Your task to perform on an android device: add a contact Image 0: 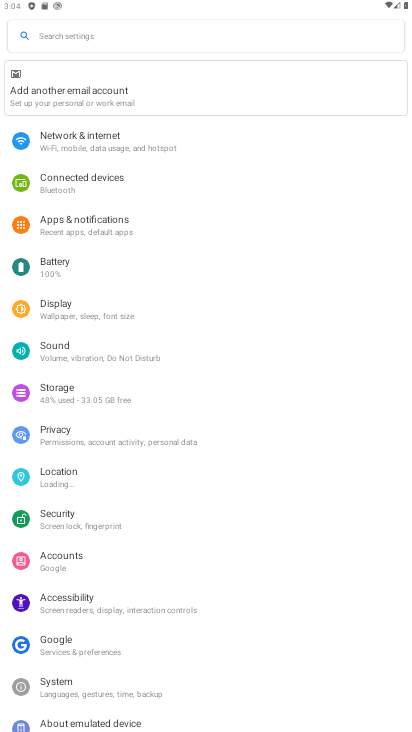
Step 0: press home button
Your task to perform on an android device: add a contact Image 1: 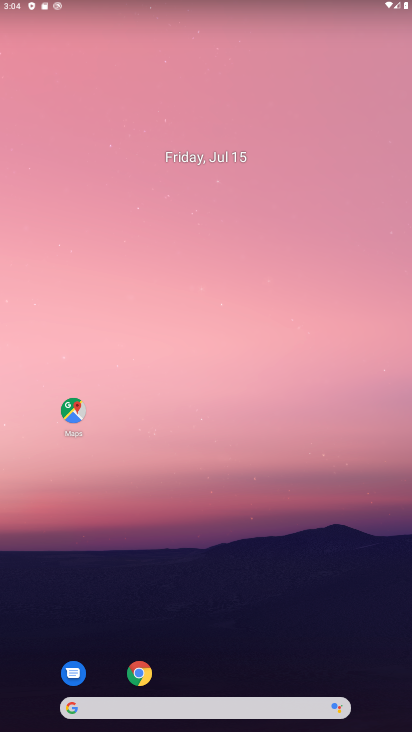
Step 1: click (305, 277)
Your task to perform on an android device: add a contact Image 2: 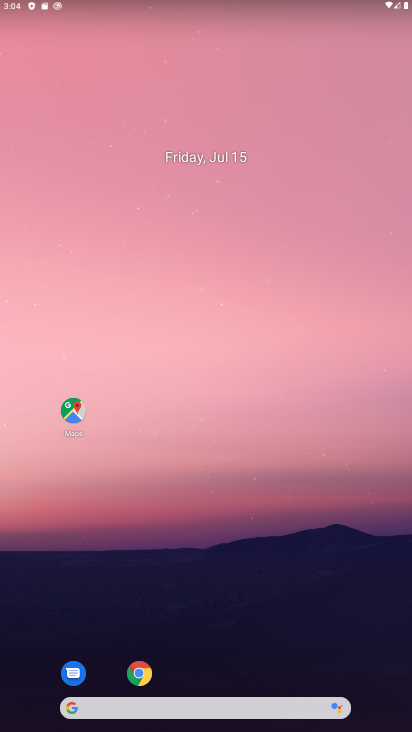
Step 2: drag from (203, 679) to (300, 185)
Your task to perform on an android device: add a contact Image 3: 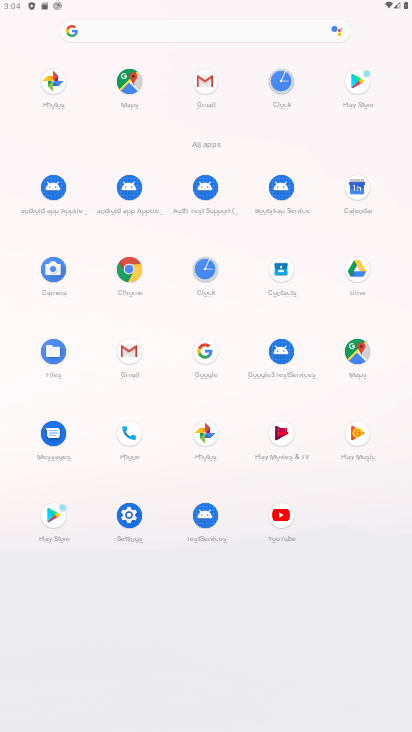
Step 3: click (276, 277)
Your task to perform on an android device: add a contact Image 4: 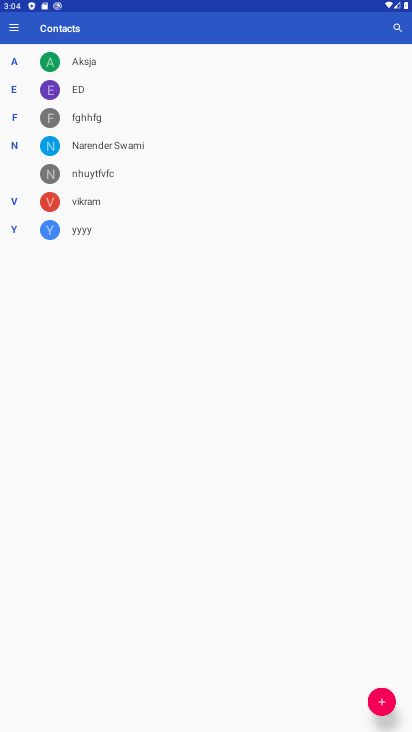
Step 4: click (391, 709)
Your task to perform on an android device: add a contact Image 5: 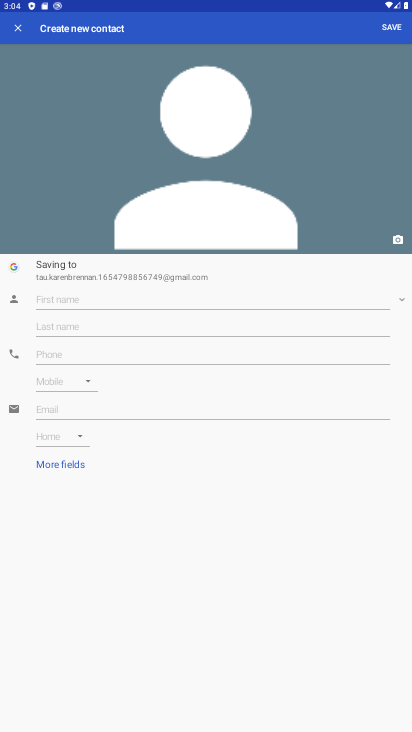
Step 5: type "goppppppppppppp"
Your task to perform on an android device: add a contact Image 6: 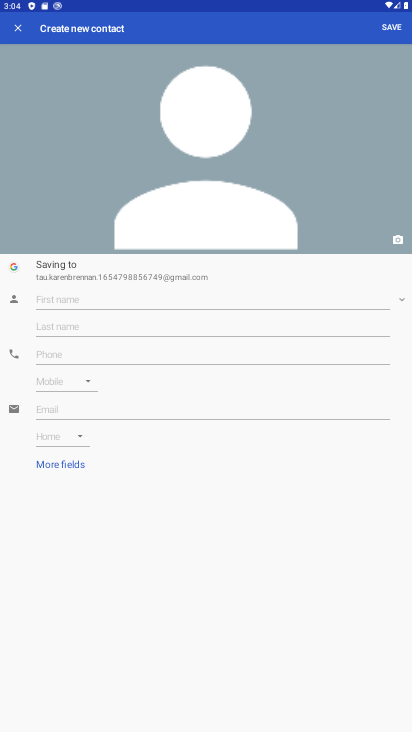
Step 6: click (95, 298)
Your task to perform on an android device: add a contact Image 7: 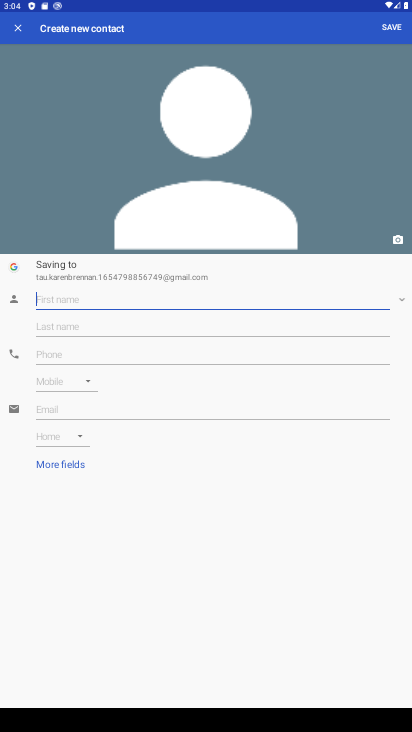
Step 7: type "JP"
Your task to perform on an android device: add a contact Image 8: 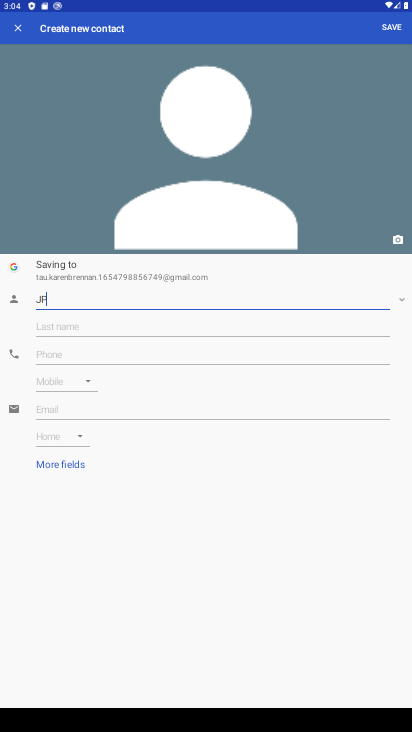
Step 8: click (61, 345)
Your task to perform on an android device: add a contact Image 9: 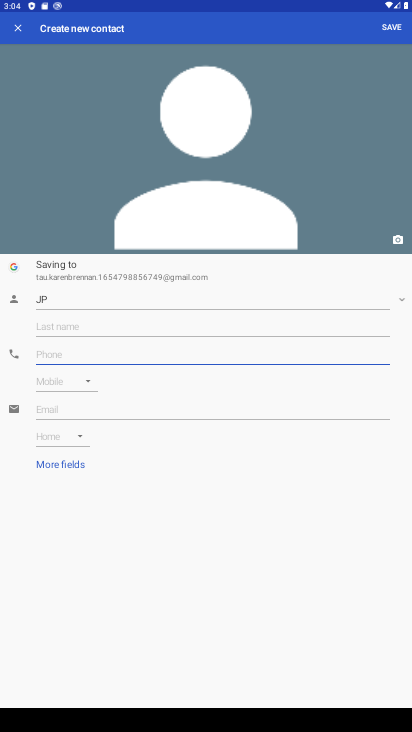
Step 9: type "7667668990"
Your task to perform on an android device: add a contact Image 10: 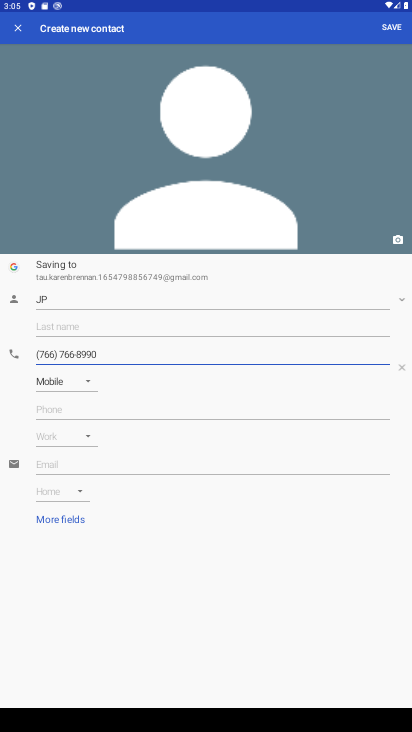
Step 10: click (384, 19)
Your task to perform on an android device: add a contact Image 11: 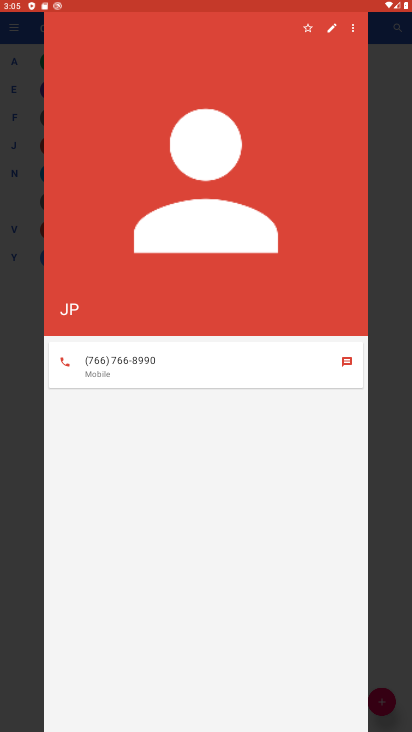
Step 11: task complete